Your task to perform on an android device: change your default location settings in chrome Image 0: 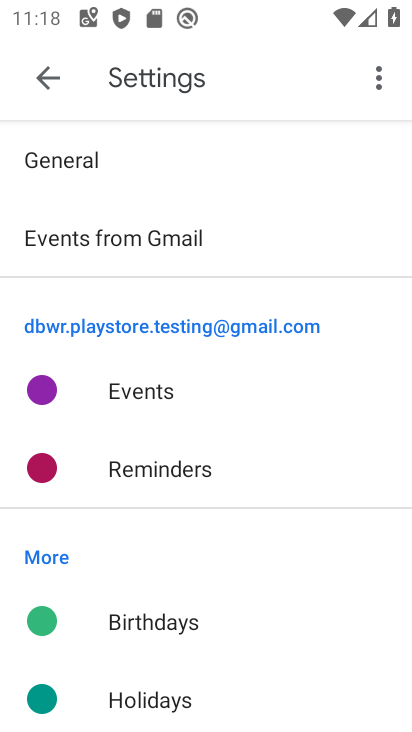
Step 0: press home button
Your task to perform on an android device: change your default location settings in chrome Image 1: 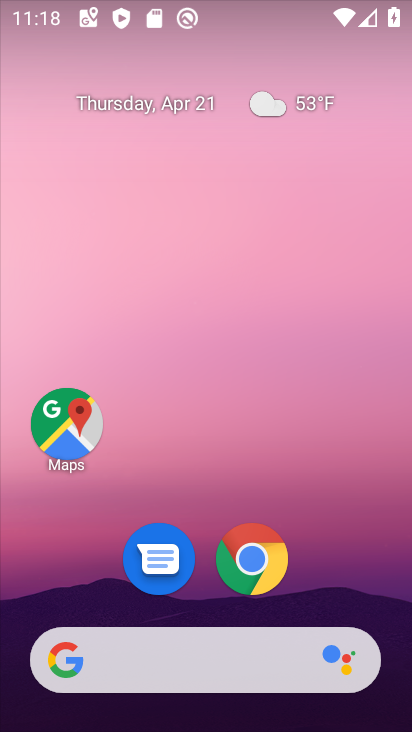
Step 1: click (257, 561)
Your task to perform on an android device: change your default location settings in chrome Image 2: 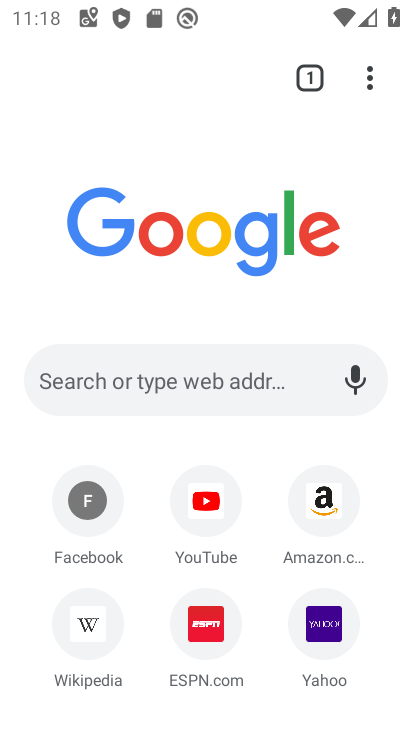
Step 2: click (379, 83)
Your task to perform on an android device: change your default location settings in chrome Image 3: 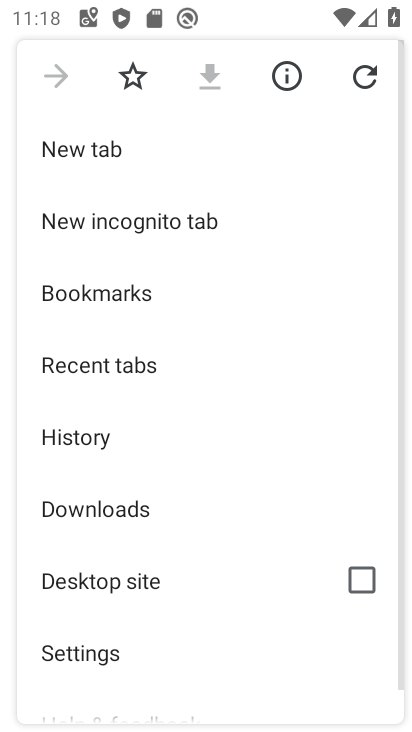
Step 3: drag from (140, 612) to (147, 228)
Your task to perform on an android device: change your default location settings in chrome Image 4: 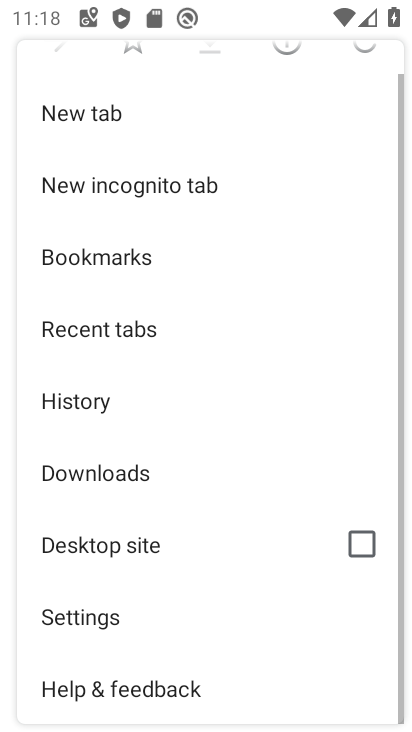
Step 4: click (62, 619)
Your task to perform on an android device: change your default location settings in chrome Image 5: 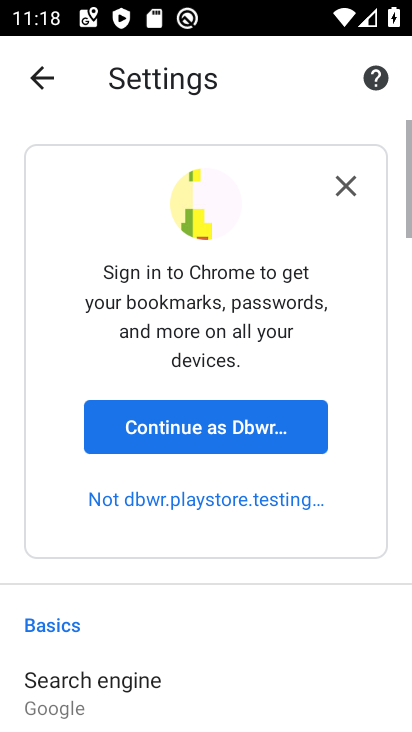
Step 5: drag from (178, 584) to (173, 60)
Your task to perform on an android device: change your default location settings in chrome Image 6: 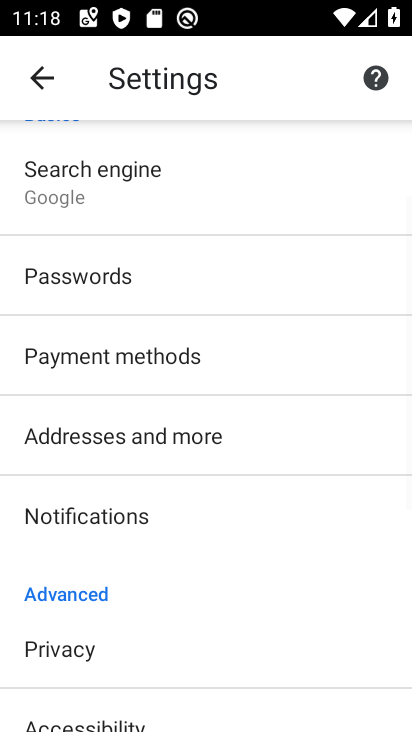
Step 6: drag from (128, 639) to (119, 196)
Your task to perform on an android device: change your default location settings in chrome Image 7: 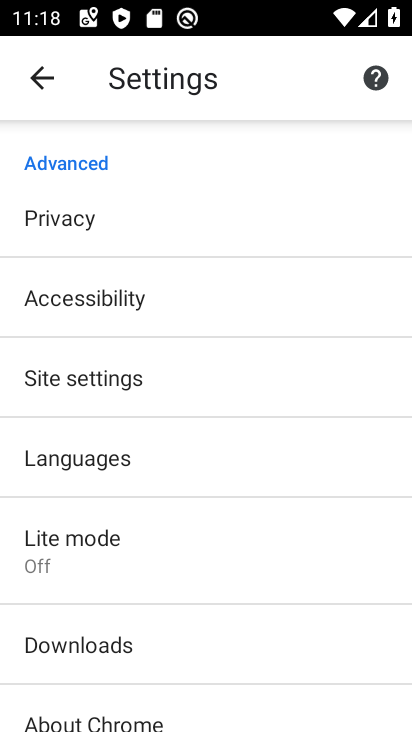
Step 7: click (84, 375)
Your task to perform on an android device: change your default location settings in chrome Image 8: 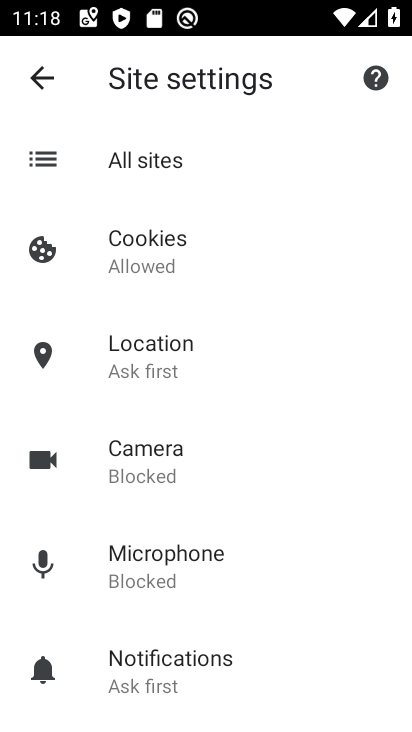
Step 8: click (115, 356)
Your task to perform on an android device: change your default location settings in chrome Image 9: 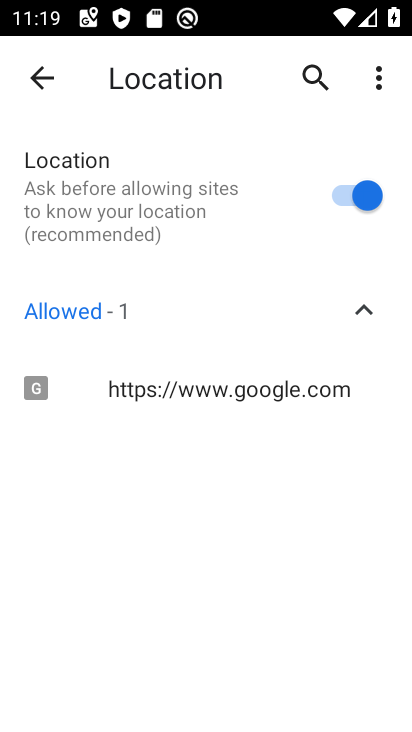
Step 9: click (373, 193)
Your task to perform on an android device: change your default location settings in chrome Image 10: 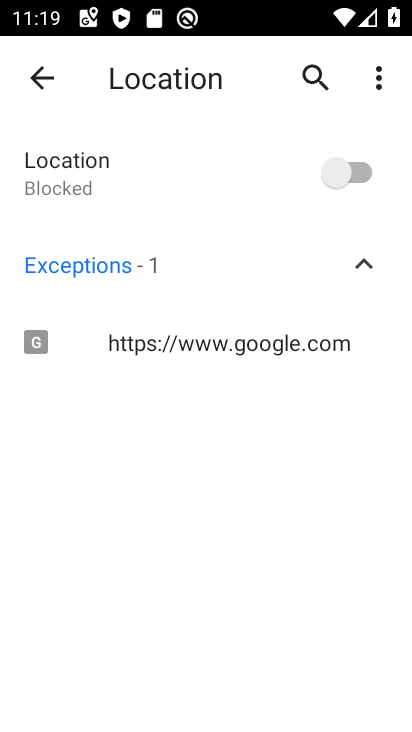
Step 10: task complete